Your task to perform on an android device: turn on airplane mode Image 0: 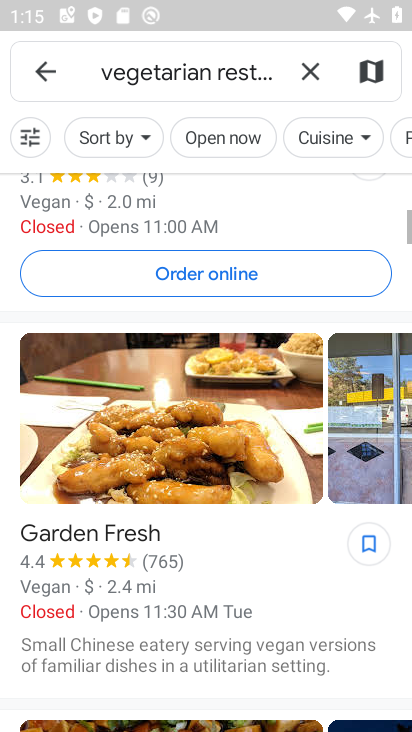
Step 0: press home button
Your task to perform on an android device: turn on airplane mode Image 1: 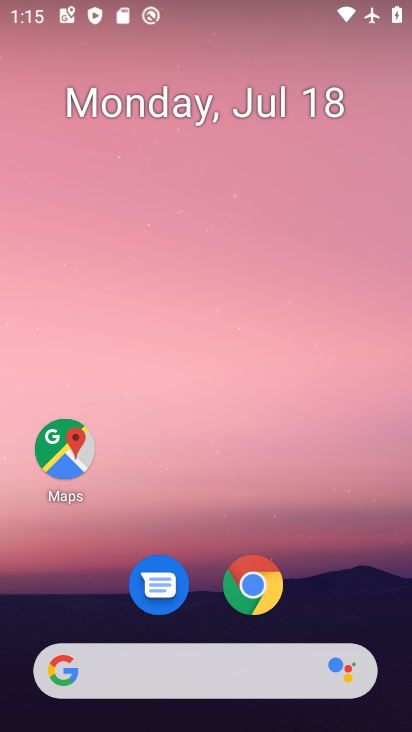
Step 1: drag from (192, 680) to (350, 72)
Your task to perform on an android device: turn on airplane mode Image 2: 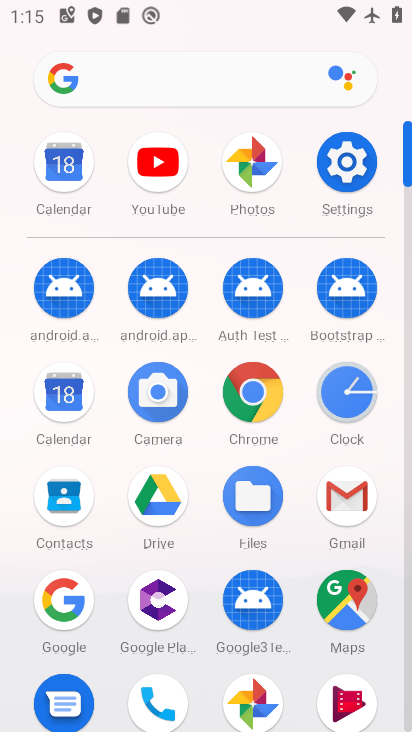
Step 2: click (360, 156)
Your task to perform on an android device: turn on airplane mode Image 3: 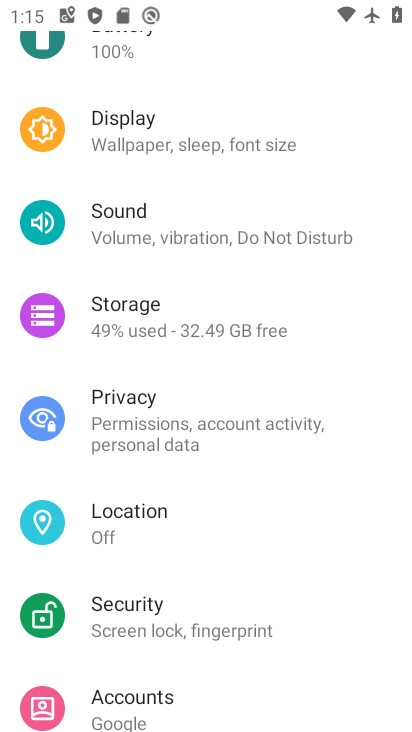
Step 3: drag from (326, 109) to (221, 611)
Your task to perform on an android device: turn on airplane mode Image 4: 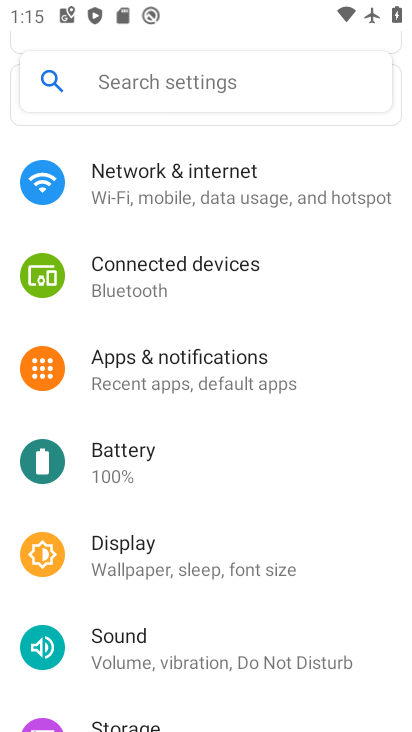
Step 4: click (216, 182)
Your task to perform on an android device: turn on airplane mode Image 5: 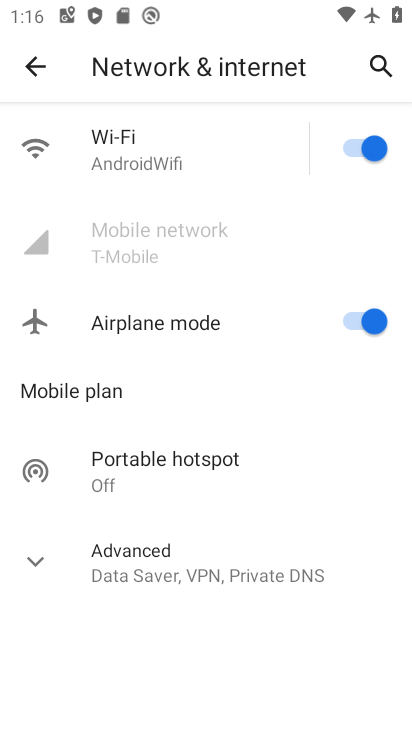
Step 5: task complete